Your task to perform on an android device: install app "Google Docs" Image 0: 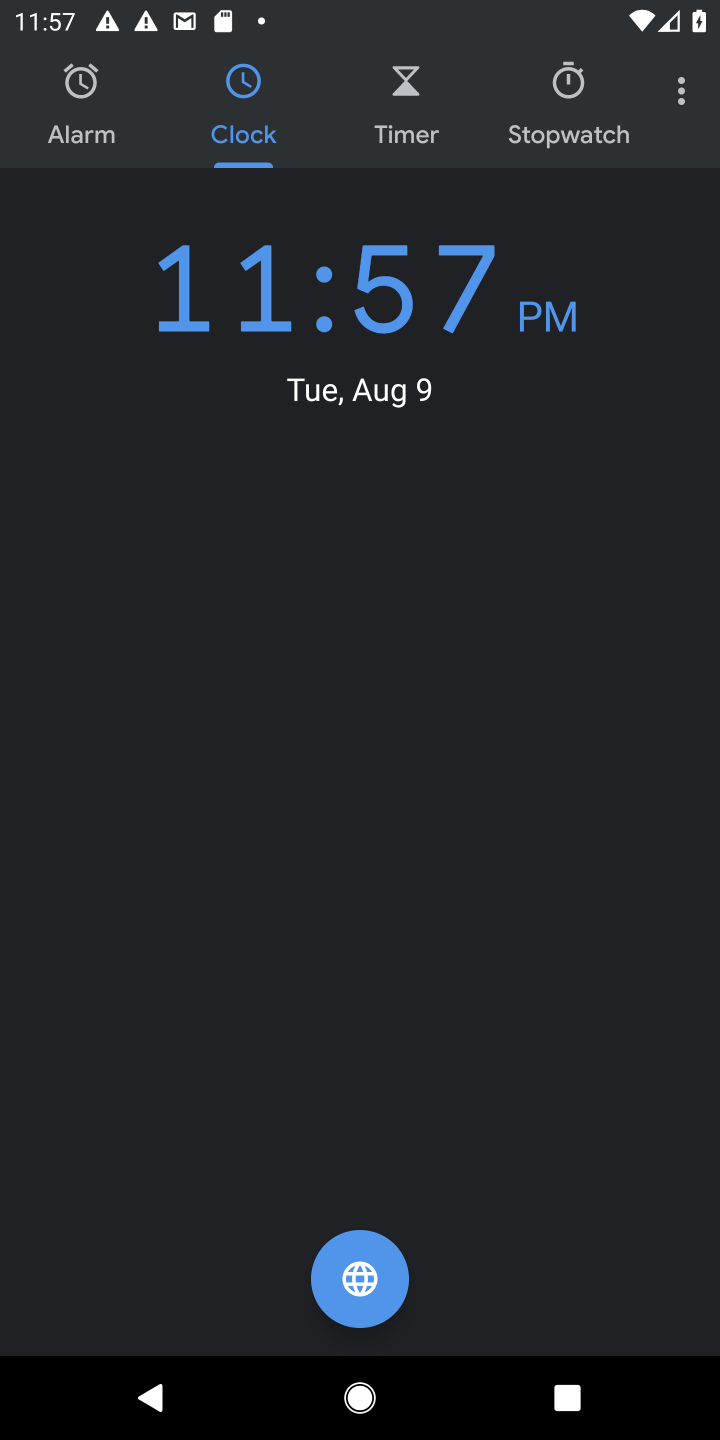
Step 0: press home button
Your task to perform on an android device: install app "Google Docs" Image 1: 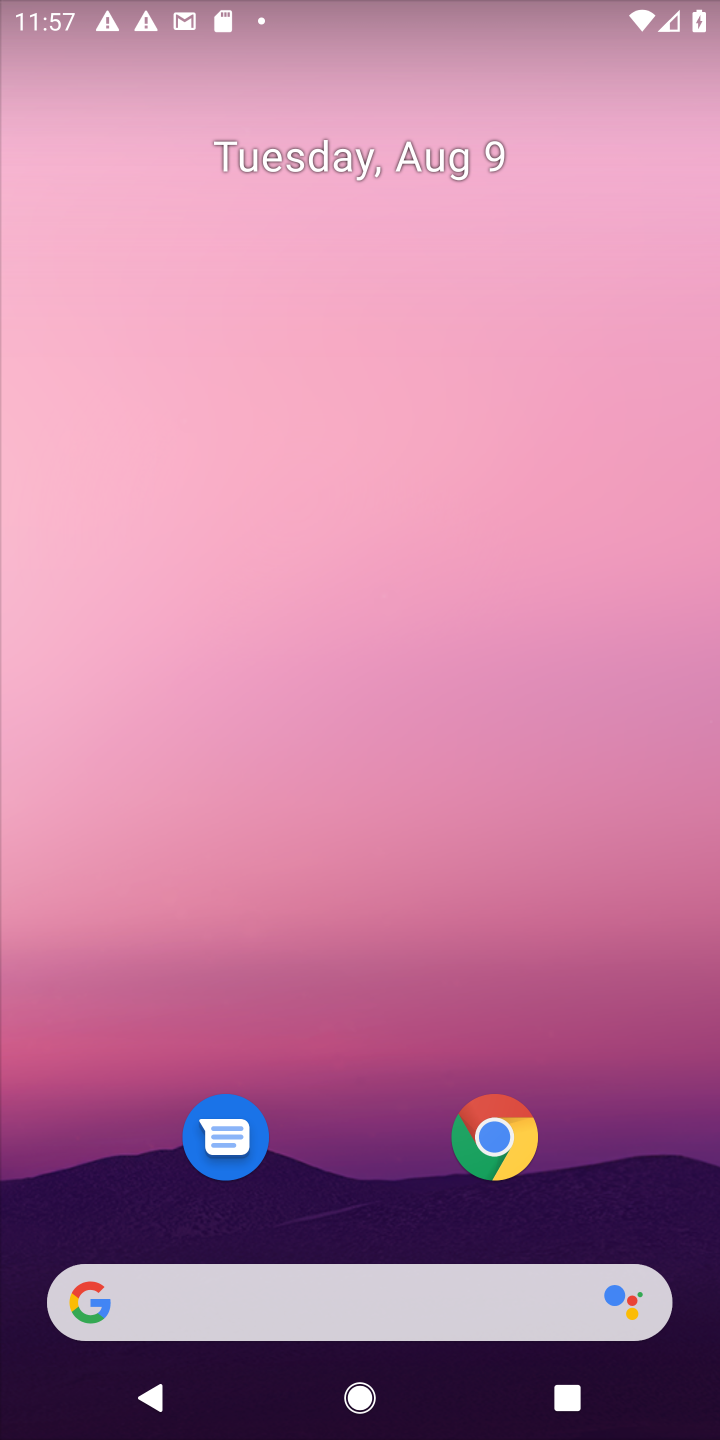
Step 1: drag from (356, 1225) to (474, 316)
Your task to perform on an android device: install app "Google Docs" Image 2: 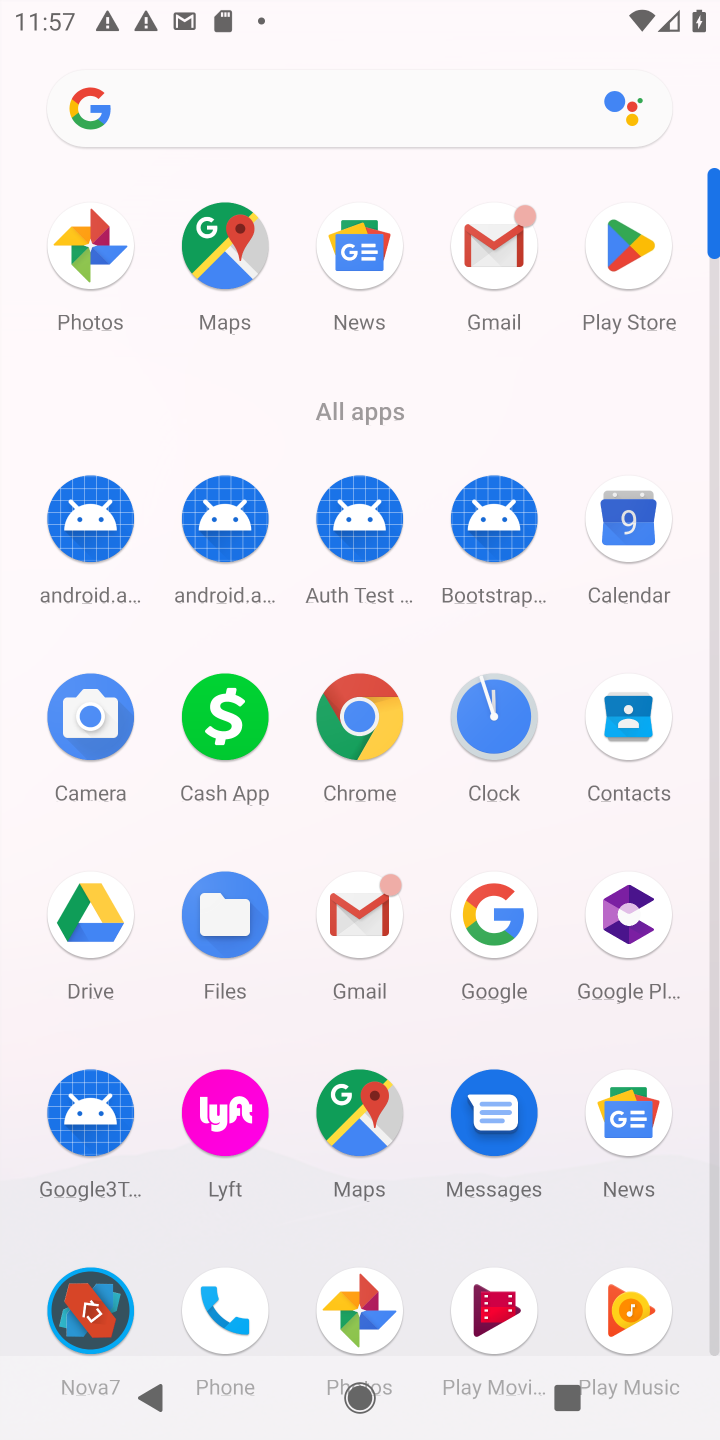
Step 2: click (627, 248)
Your task to perform on an android device: install app "Google Docs" Image 3: 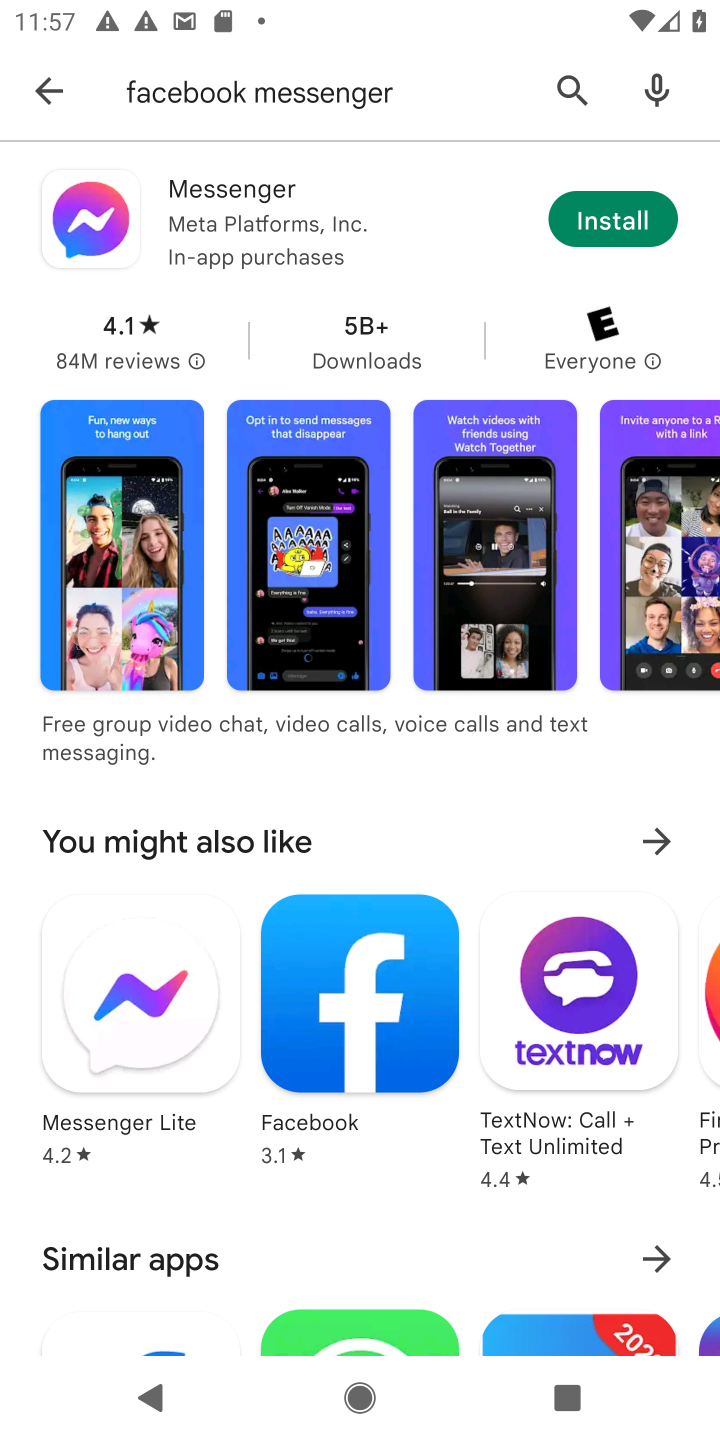
Step 3: click (557, 77)
Your task to perform on an android device: install app "Google Docs" Image 4: 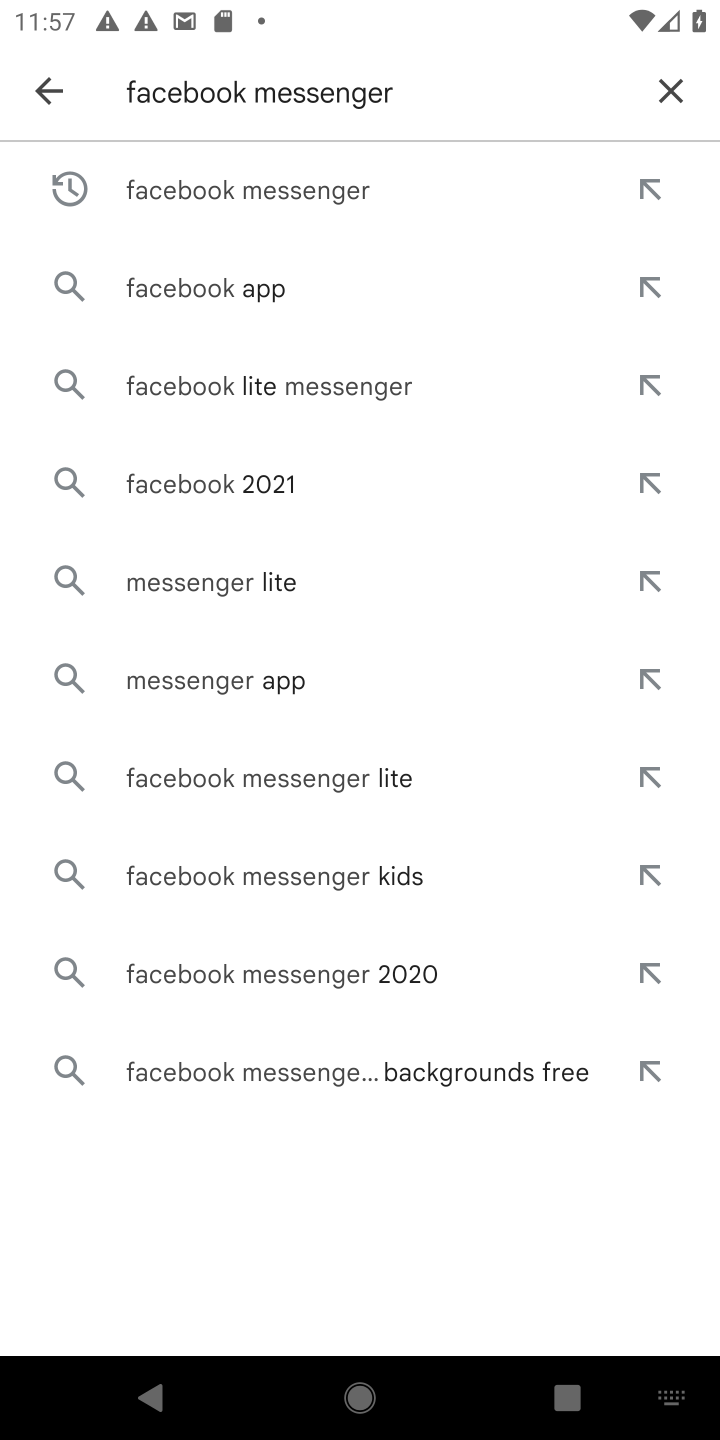
Step 4: click (678, 84)
Your task to perform on an android device: install app "Google Docs" Image 5: 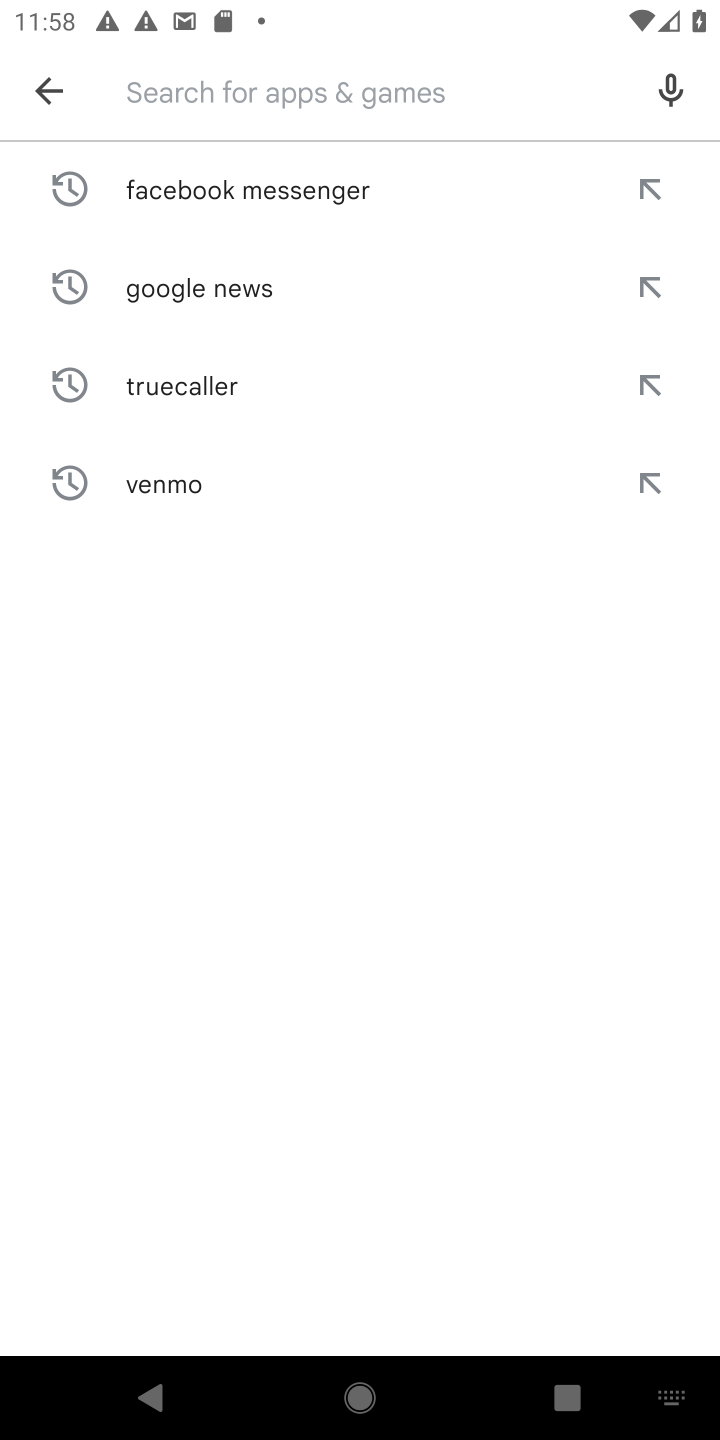
Step 5: type "Google Docs"
Your task to perform on an android device: install app "Google Docs" Image 6: 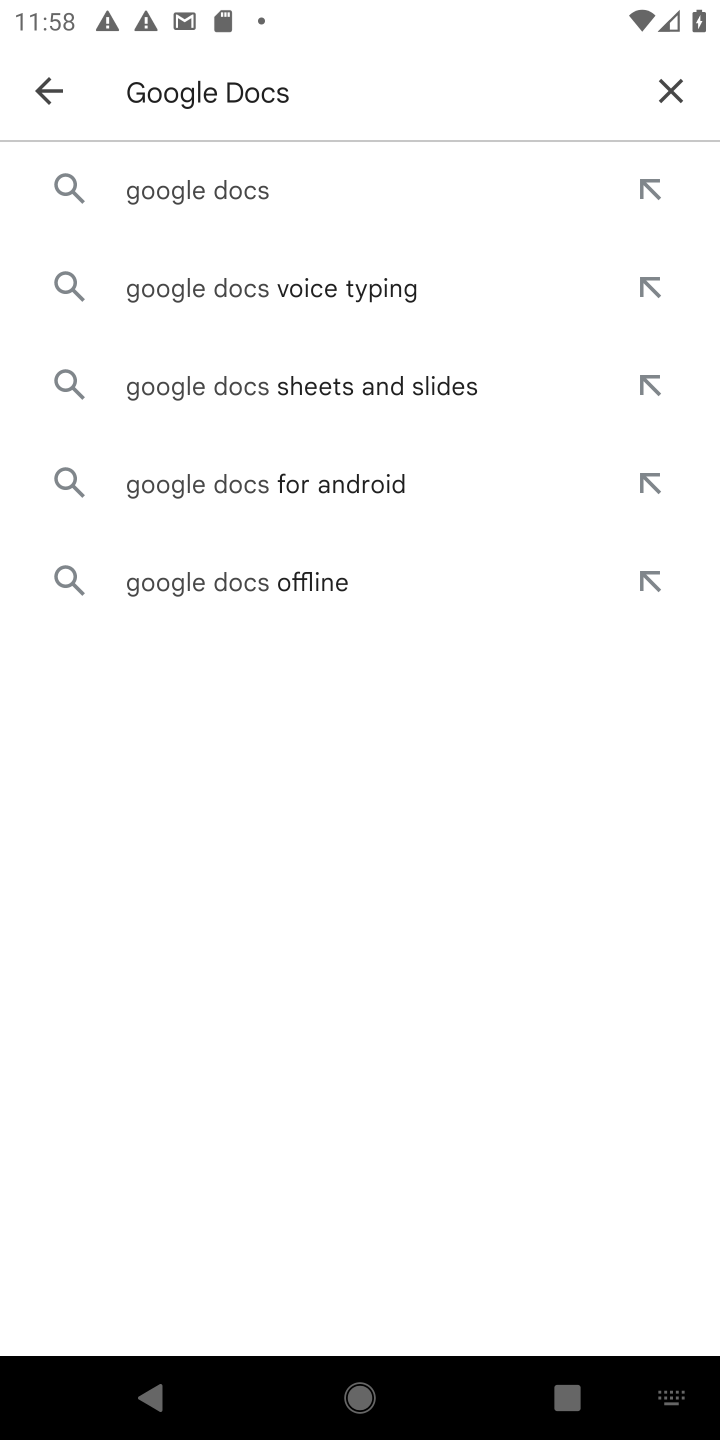
Step 6: click (239, 195)
Your task to perform on an android device: install app "Google Docs" Image 7: 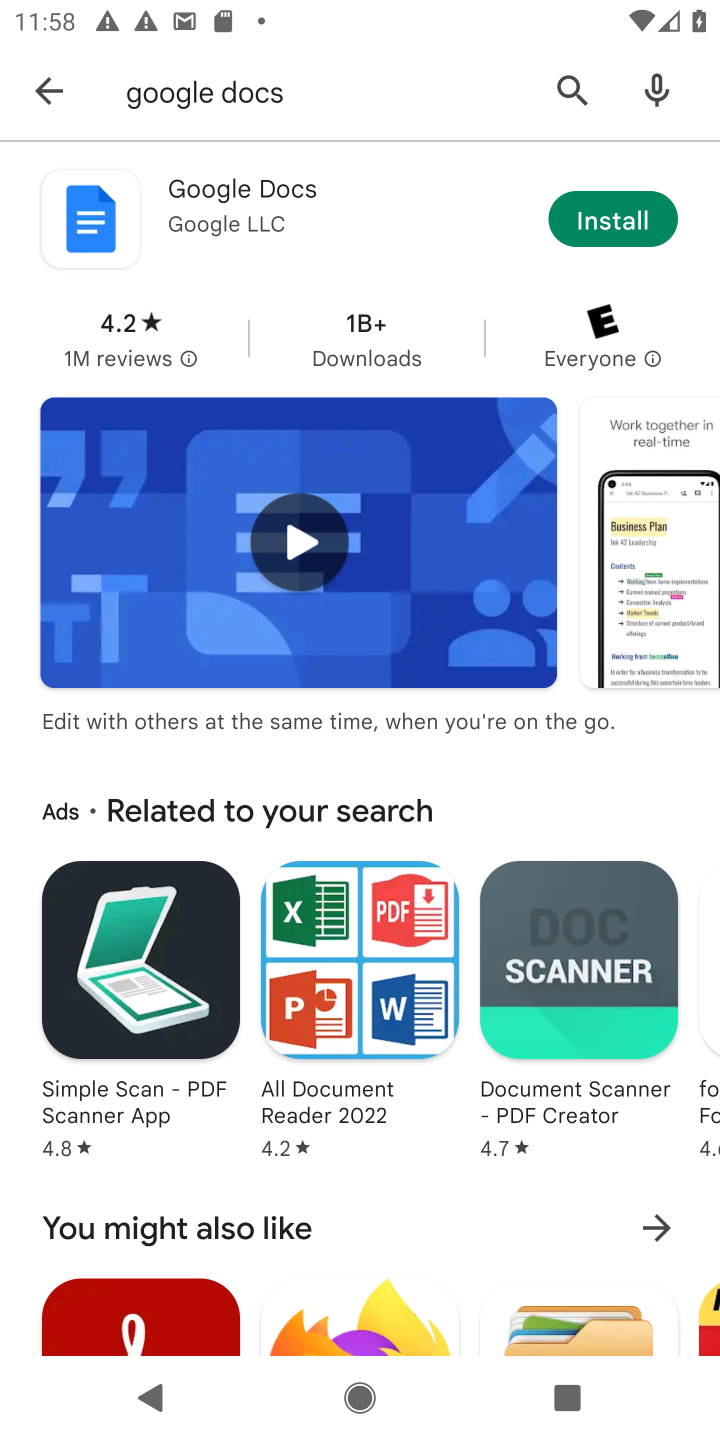
Step 7: click (624, 216)
Your task to perform on an android device: install app "Google Docs" Image 8: 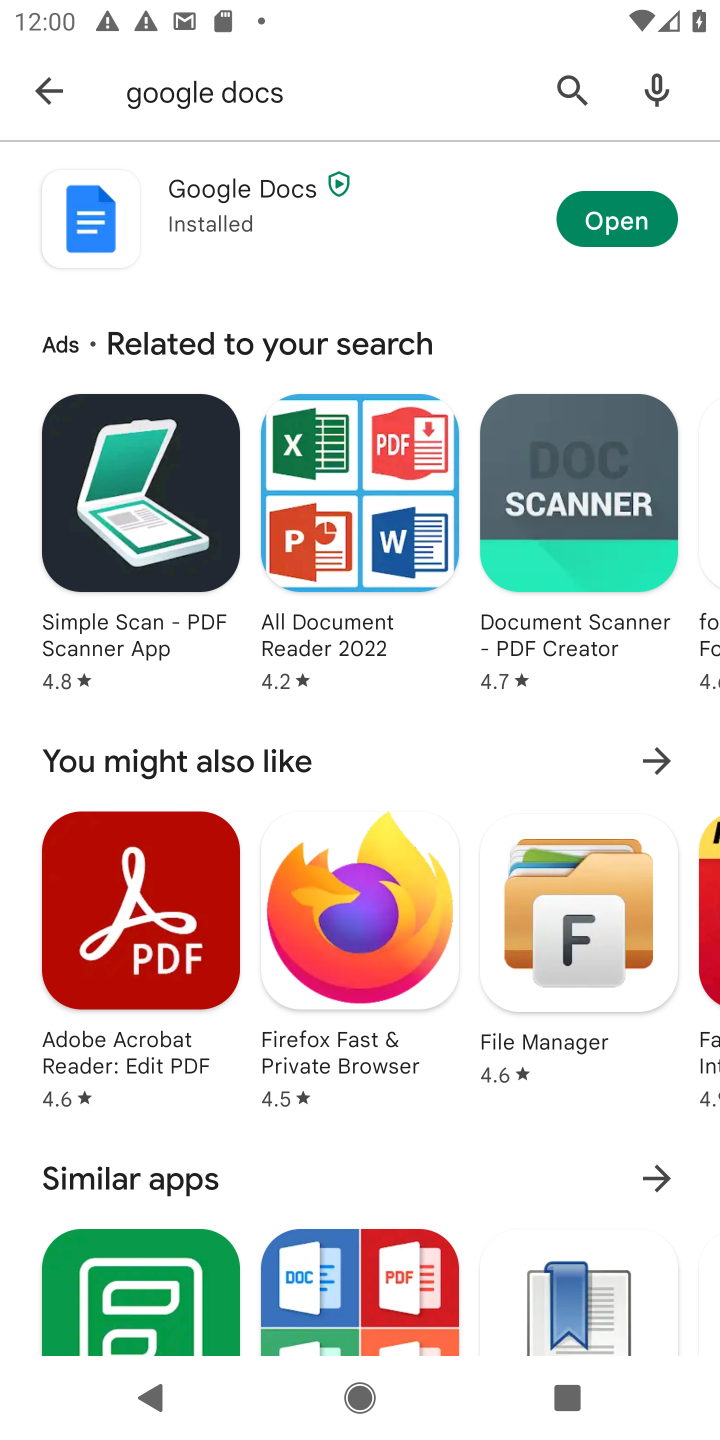
Step 8: click (609, 223)
Your task to perform on an android device: install app "Google Docs" Image 9: 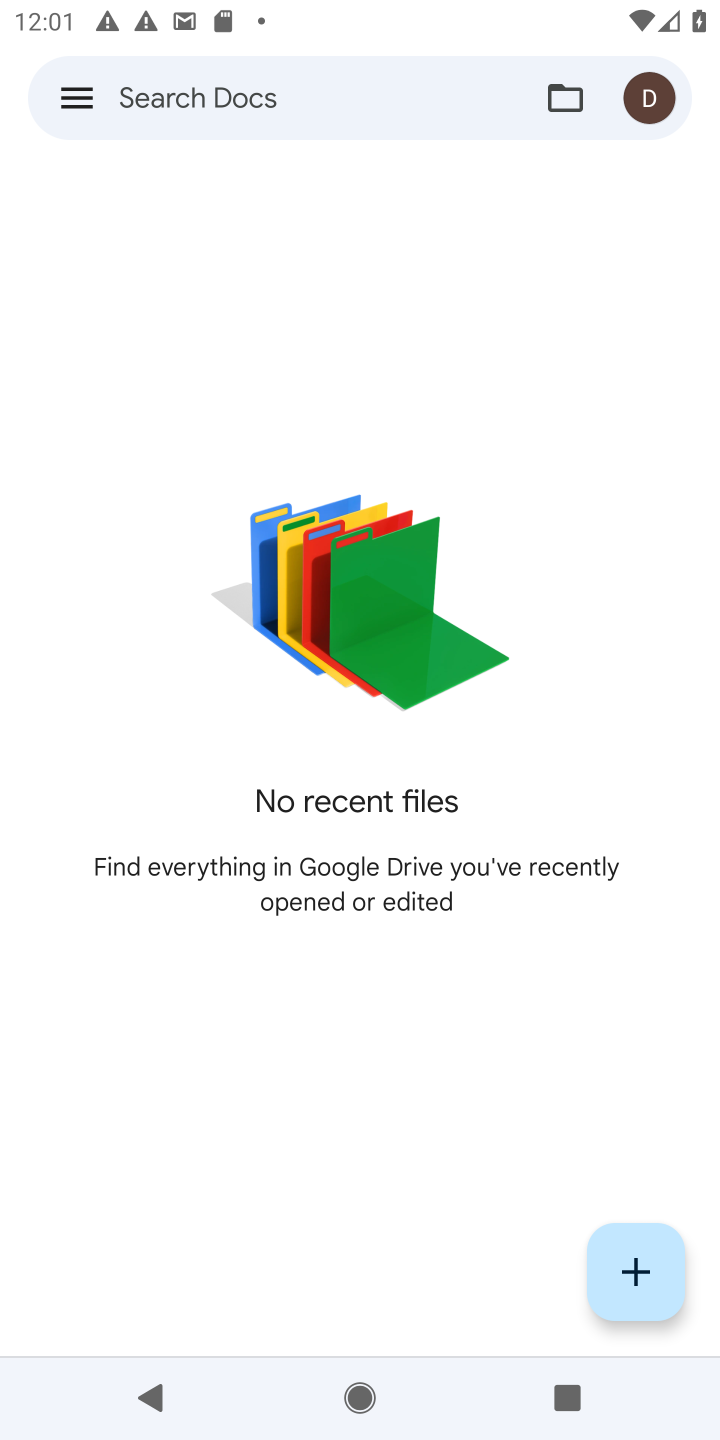
Step 9: task complete